Your task to perform on an android device: Open settings Image 0: 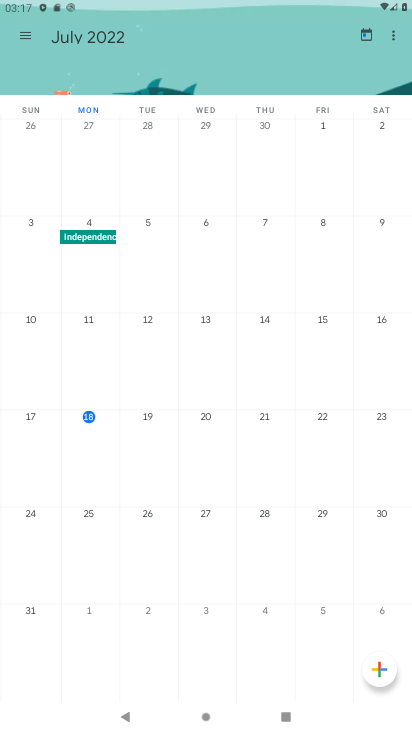
Step 0: press home button
Your task to perform on an android device: Open settings Image 1: 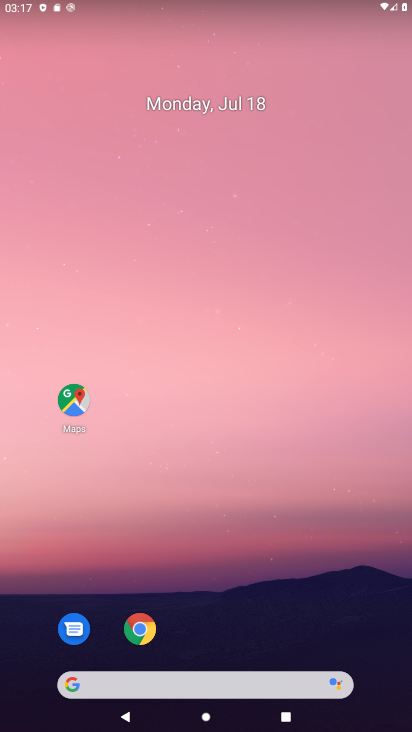
Step 1: drag from (387, 693) to (363, 72)
Your task to perform on an android device: Open settings Image 2: 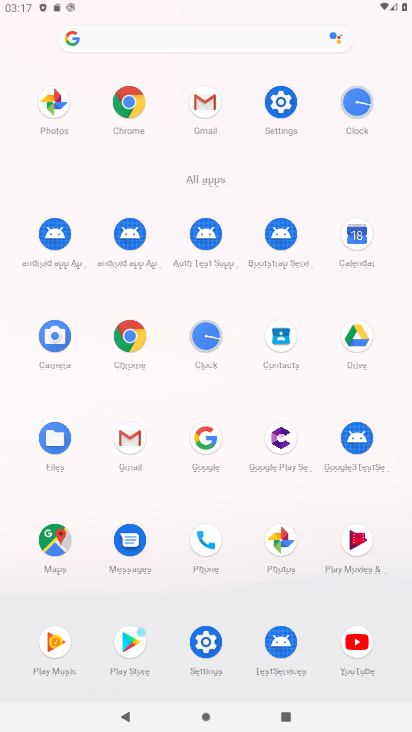
Step 2: click (287, 94)
Your task to perform on an android device: Open settings Image 3: 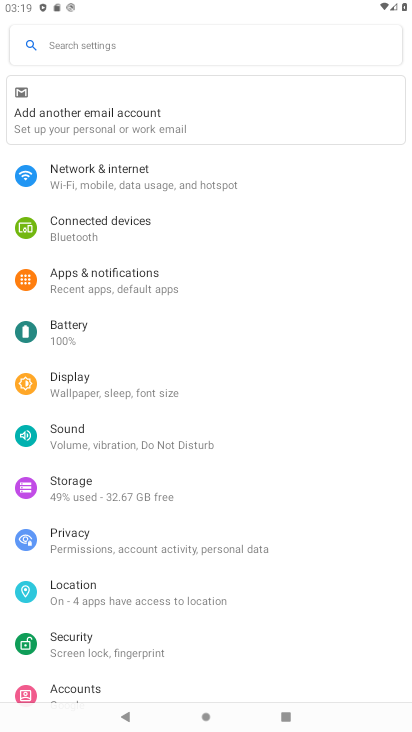
Step 3: task complete